Your task to perform on an android device: Check the weather Image 0: 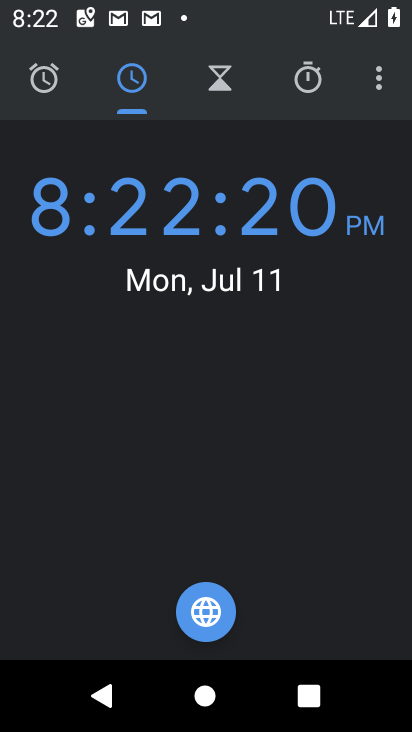
Step 0: press home button
Your task to perform on an android device: Check the weather Image 1: 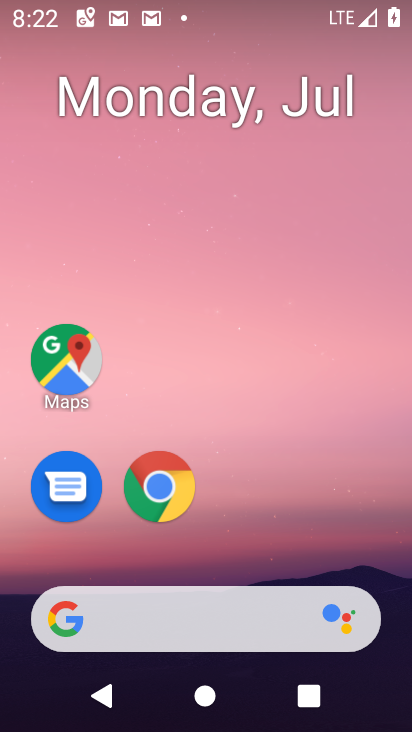
Step 1: drag from (373, 550) to (362, 149)
Your task to perform on an android device: Check the weather Image 2: 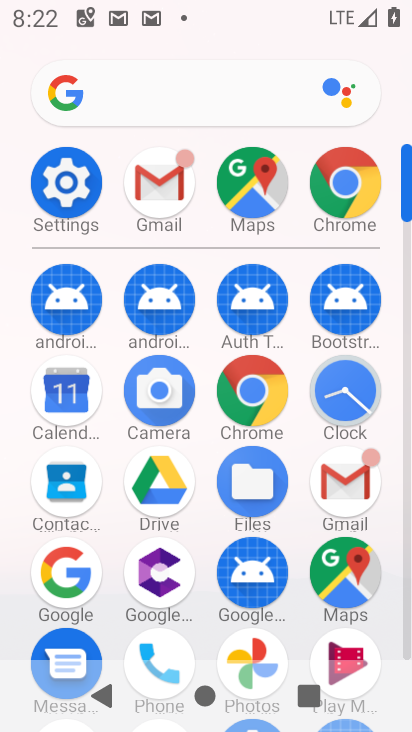
Step 2: click (213, 100)
Your task to perform on an android device: Check the weather Image 3: 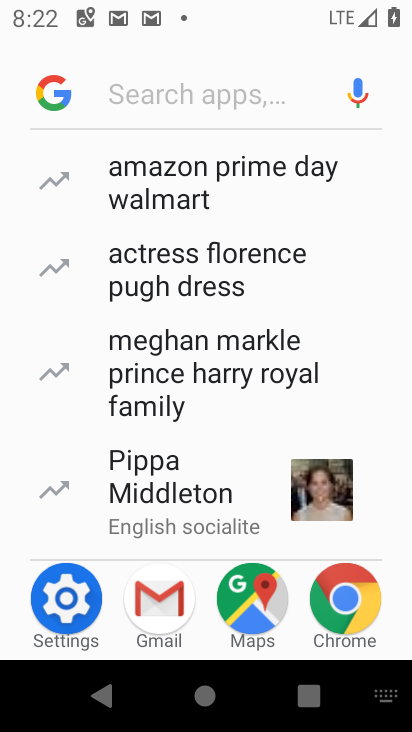
Step 3: type "weather"
Your task to perform on an android device: Check the weather Image 4: 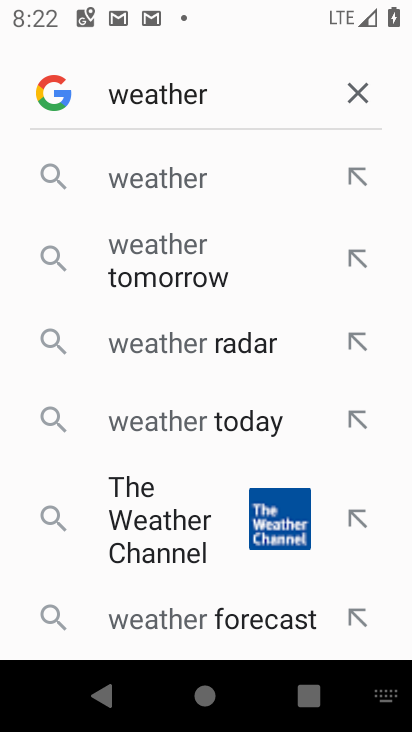
Step 4: click (202, 178)
Your task to perform on an android device: Check the weather Image 5: 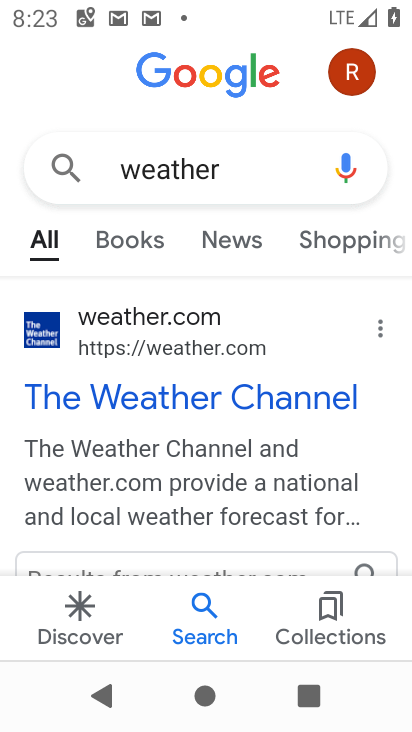
Step 5: task complete